Your task to perform on an android device: Go to Android settings Image 0: 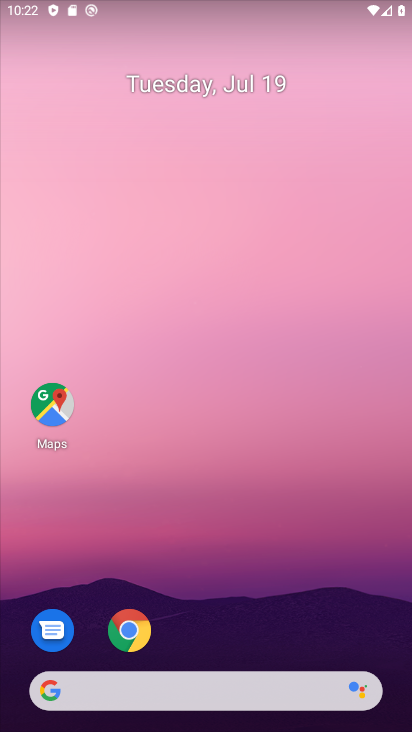
Step 0: drag from (223, 674) to (181, 190)
Your task to perform on an android device: Go to Android settings Image 1: 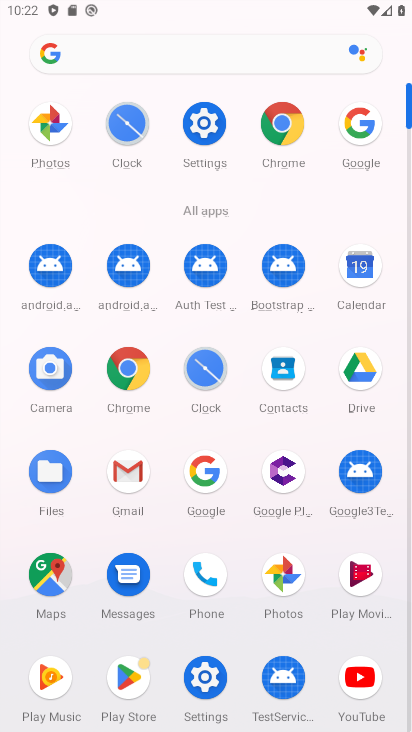
Step 1: click (201, 129)
Your task to perform on an android device: Go to Android settings Image 2: 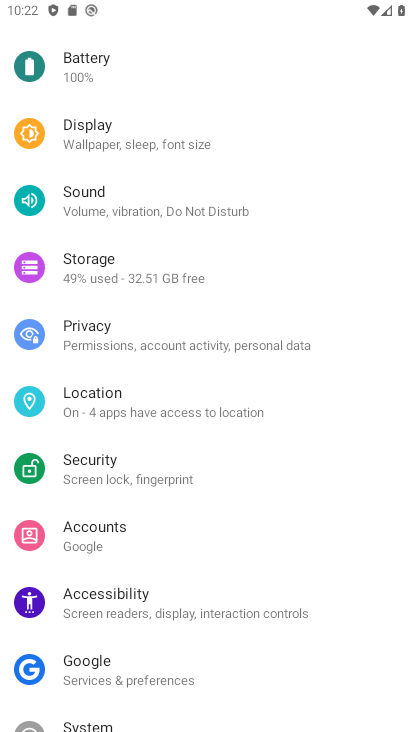
Step 2: task complete